Your task to perform on an android device: Open Maps and search for coffee Image 0: 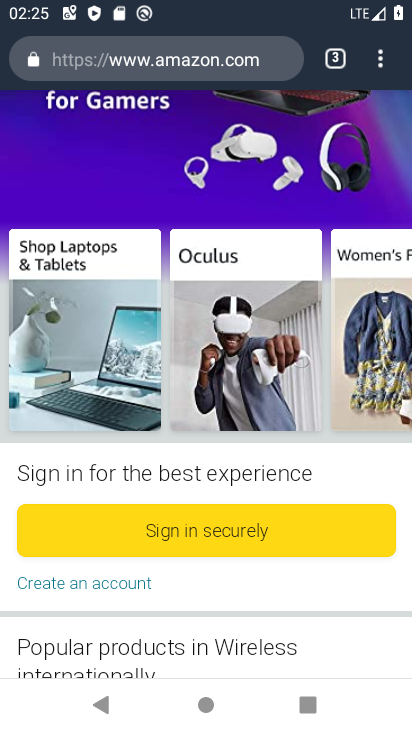
Step 0: click (375, 337)
Your task to perform on an android device: Open Maps and search for coffee Image 1: 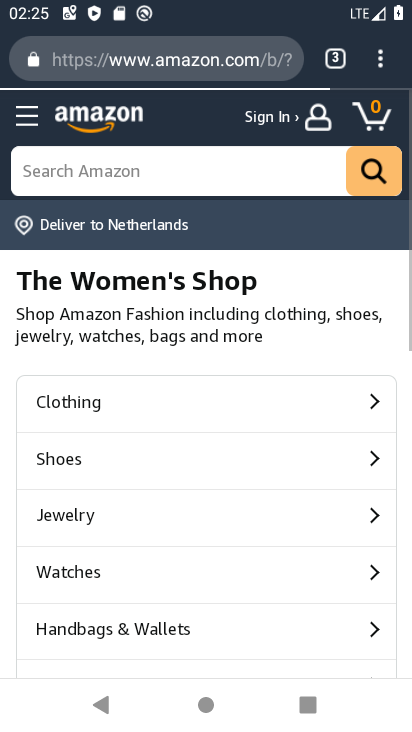
Step 1: drag from (219, 629) to (319, 319)
Your task to perform on an android device: Open Maps and search for coffee Image 2: 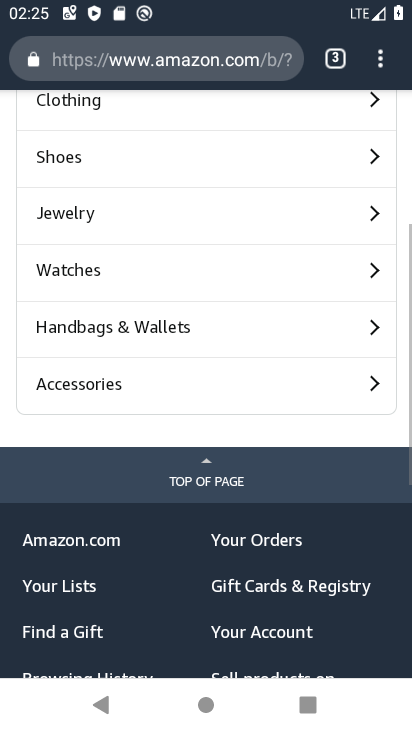
Step 2: drag from (322, 316) to (406, 356)
Your task to perform on an android device: Open Maps and search for coffee Image 3: 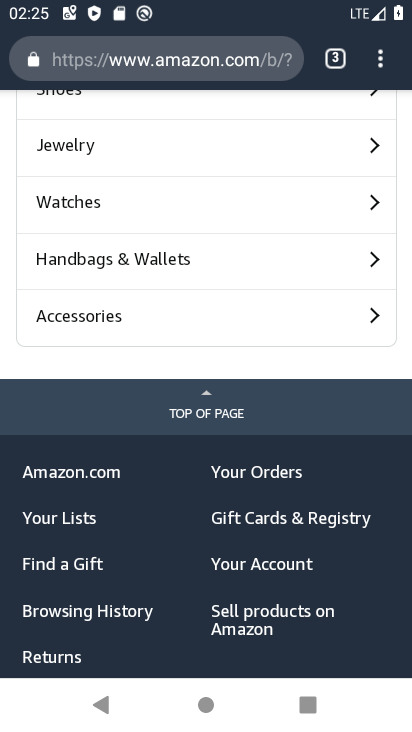
Step 3: drag from (288, 364) to (408, 698)
Your task to perform on an android device: Open Maps and search for coffee Image 4: 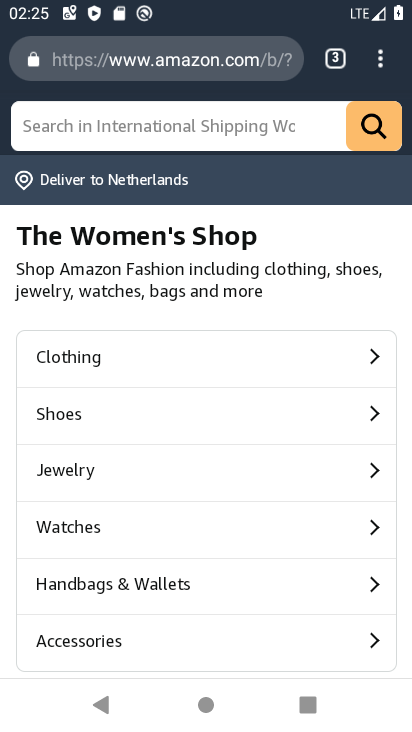
Step 4: press home button
Your task to perform on an android device: Open Maps and search for coffee Image 5: 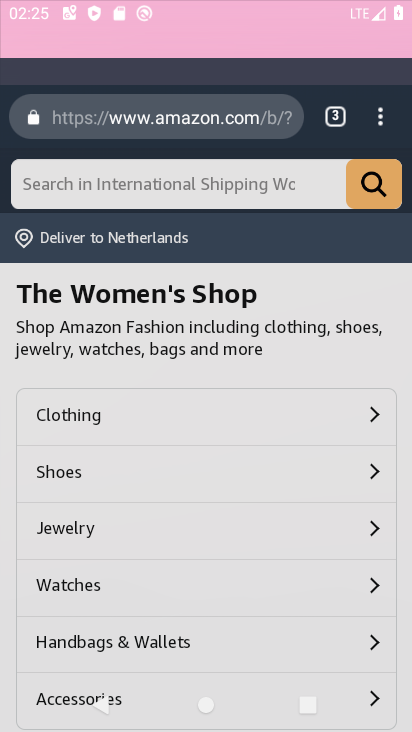
Step 5: drag from (408, 698) to (411, 452)
Your task to perform on an android device: Open Maps and search for coffee Image 6: 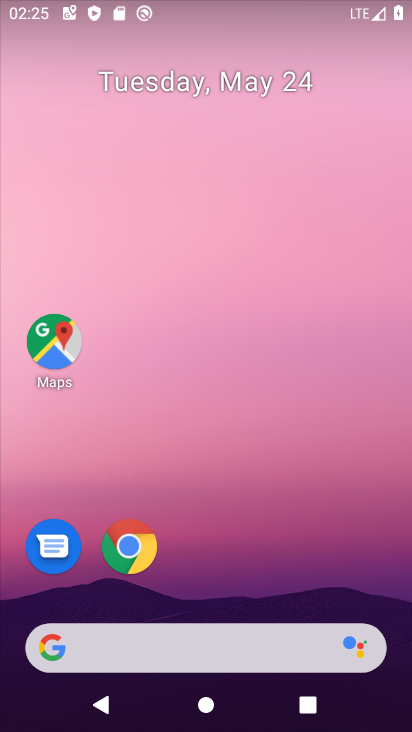
Step 6: drag from (205, 582) to (326, 34)
Your task to perform on an android device: Open Maps and search for coffee Image 7: 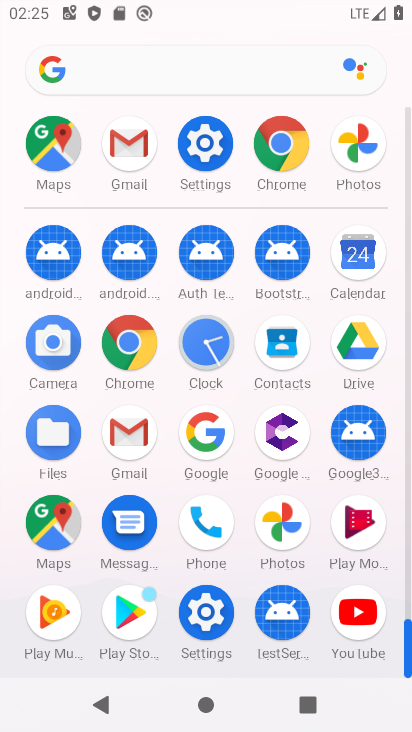
Step 7: click (56, 514)
Your task to perform on an android device: Open Maps and search for coffee Image 8: 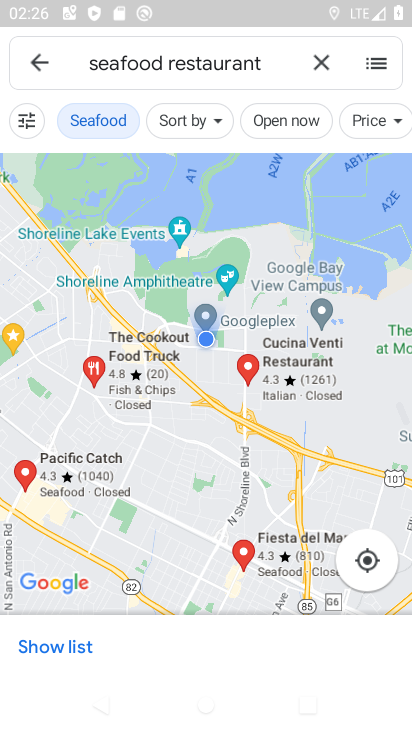
Step 8: drag from (175, 558) to (254, 301)
Your task to perform on an android device: Open Maps and search for coffee Image 9: 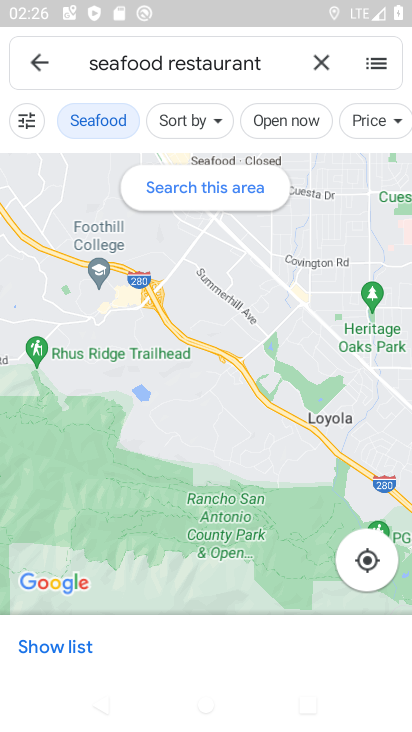
Step 9: click (28, 59)
Your task to perform on an android device: Open Maps and search for coffee Image 10: 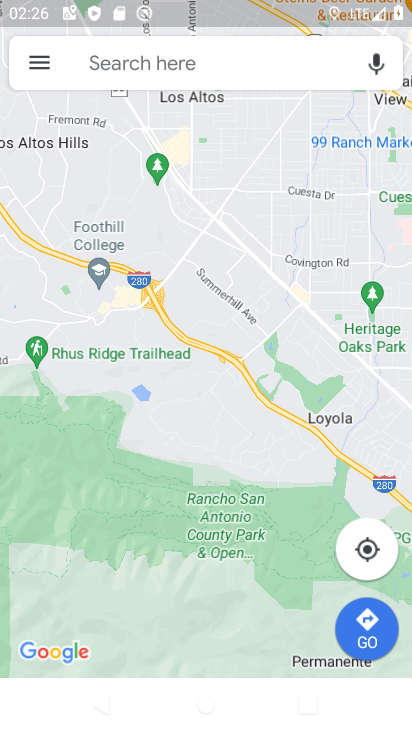
Step 10: click (27, 66)
Your task to perform on an android device: Open Maps and search for coffee Image 11: 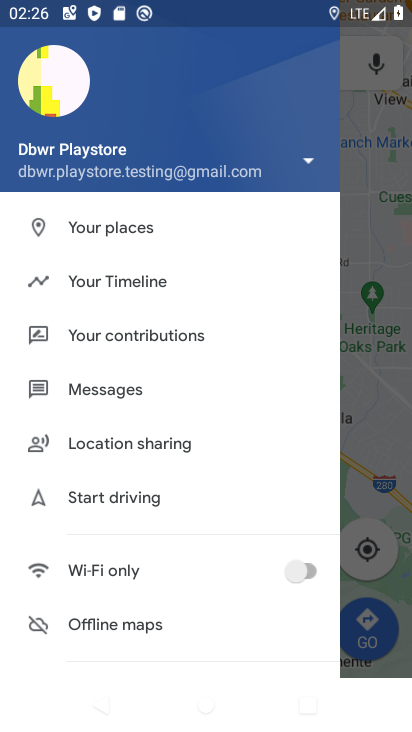
Step 11: click (383, 395)
Your task to perform on an android device: Open Maps and search for coffee Image 12: 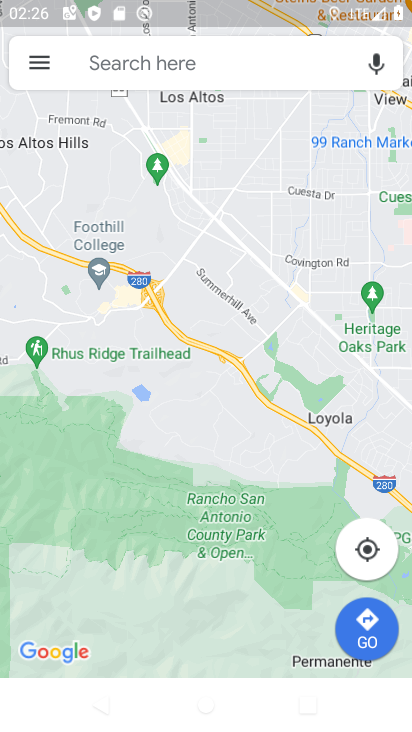
Step 12: click (235, 72)
Your task to perform on an android device: Open Maps and search for coffee Image 13: 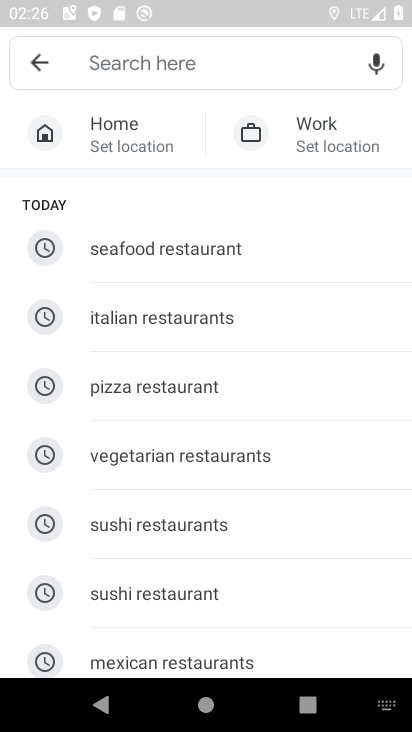
Step 13: drag from (178, 618) to (263, 186)
Your task to perform on an android device: Open Maps and search for coffee Image 14: 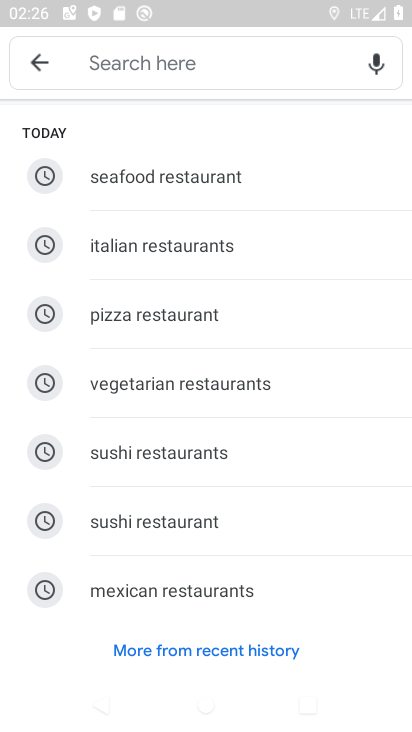
Step 14: type "coffee"
Your task to perform on an android device: Open Maps and search for coffee Image 15: 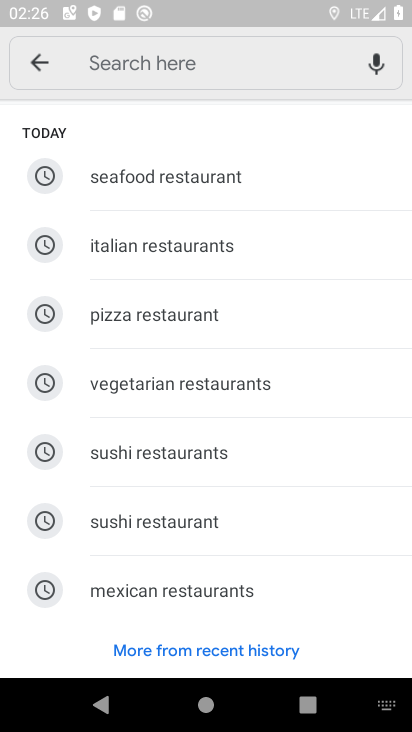
Step 15: click (157, 65)
Your task to perform on an android device: Open Maps and search for coffee Image 16: 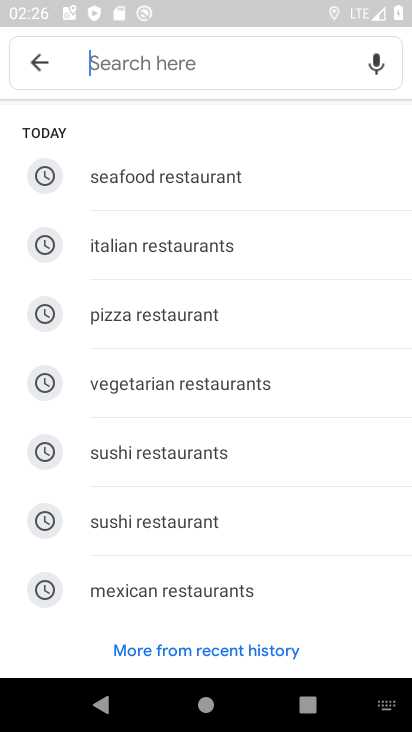
Step 16: type "cofee"
Your task to perform on an android device: Open Maps and search for coffee Image 17: 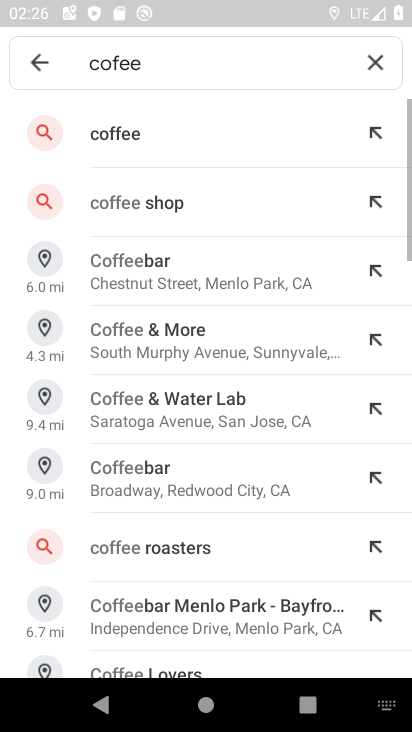
Step 17: click (105, 145)
Your task to perform on an android device: Open Maps and search for coffee Image 18: 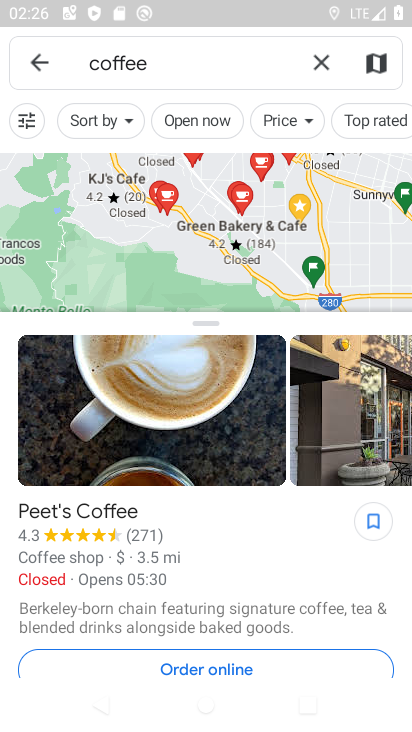
Step 18: task complete